Your task to perform on an android device: Turn off the flashlight Image 0: 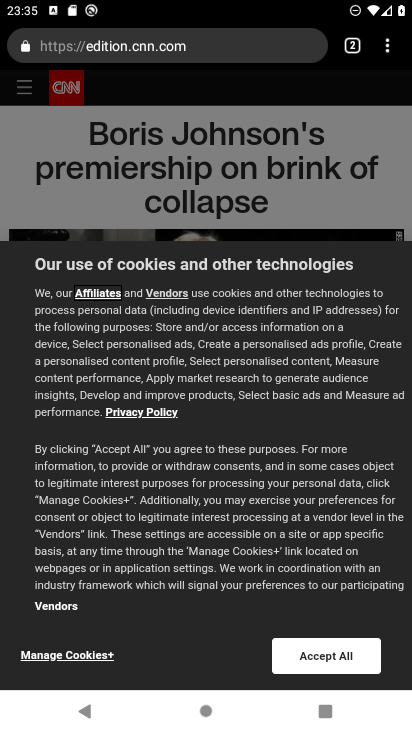
Step 0: press home button
Your task to perform on an android device: Turn off the flashlight Image 1: 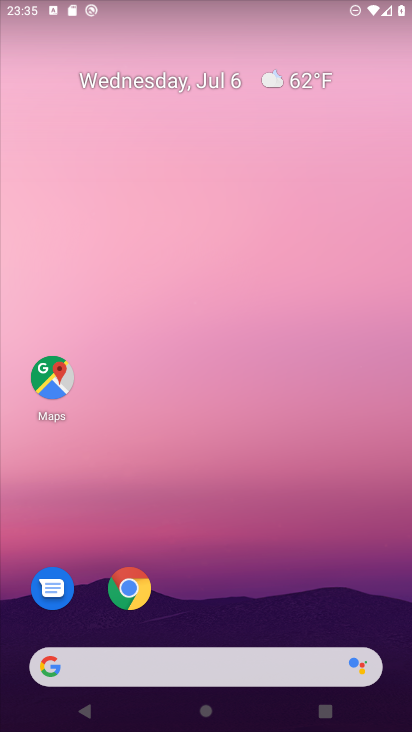
Step 1: drag from (241, 22) to (251, 479)
Your task to perform on an android device: Turn off the flashlight Image 2: 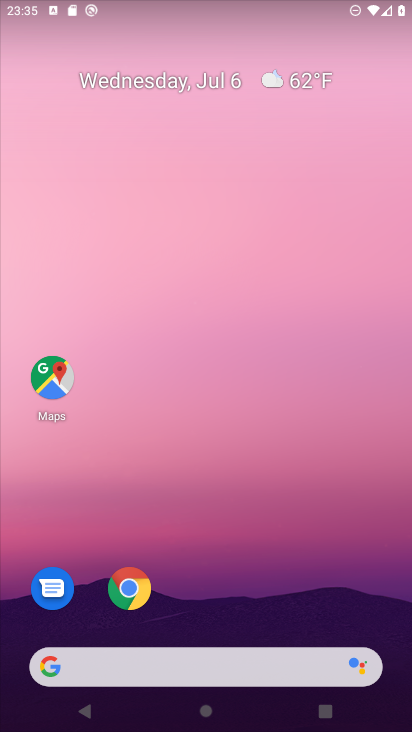
Step 2: drag from (247, 22) to (262, 416)
Your task to perform on an android device: Turn off the flashlight Image 3: 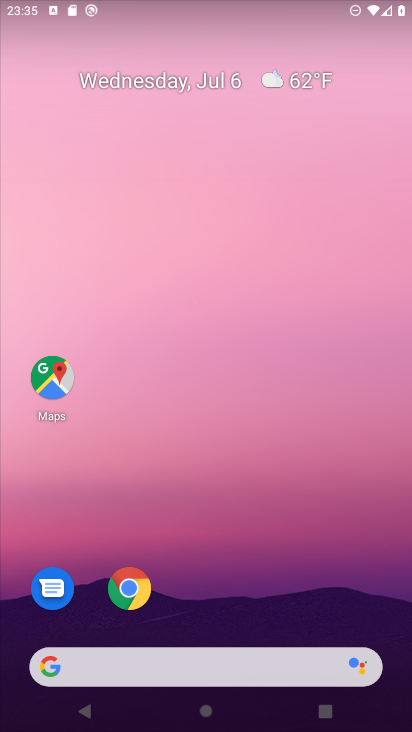
Step 3: drag from (263, 6) to (253, 358)
Your task to perform on an android device: Turn off the flashlight Image 4: 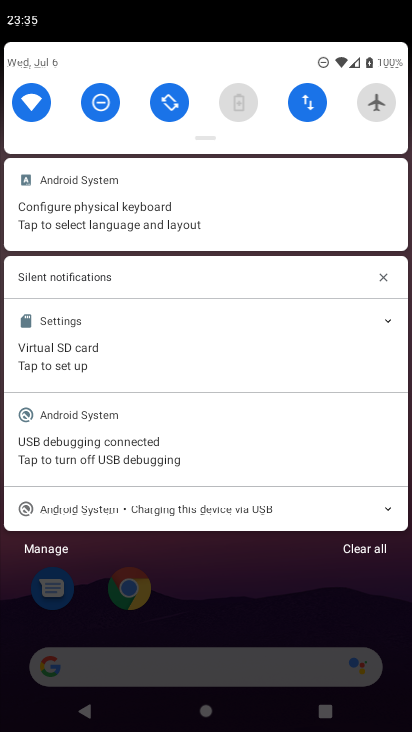
Step 4: drag from (202, 140) to (204, 452)
Your task to perform on an android device: Turn off the flashlight Image 5: 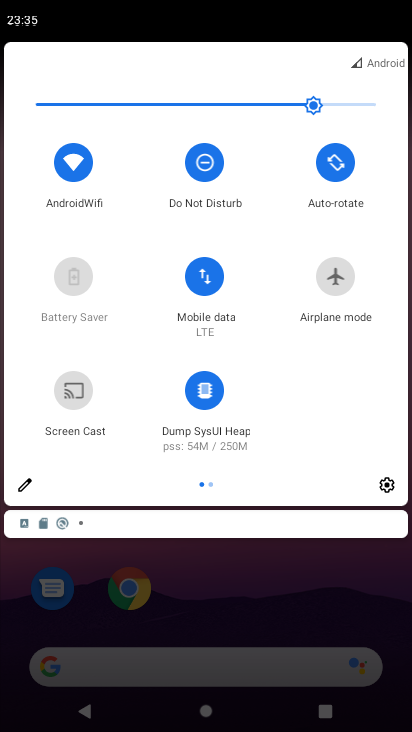
Step 5: click (20, 483)
Your task to perform on an android device: Turn off the flashlight Image 6: 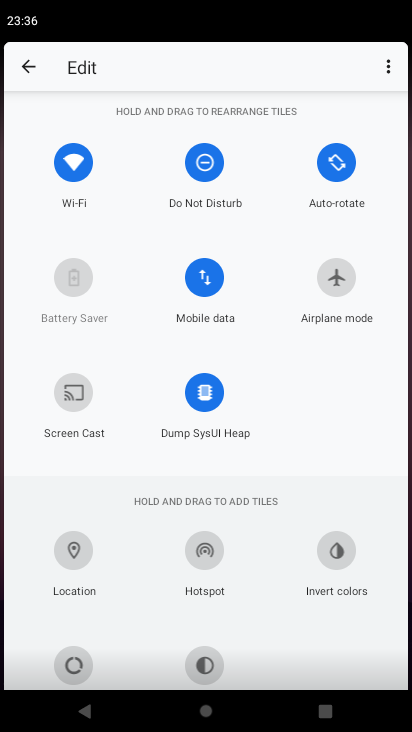
Step 6: task complete